Your task to perform on an android device: Do I have any events tomorrow? Image 0: 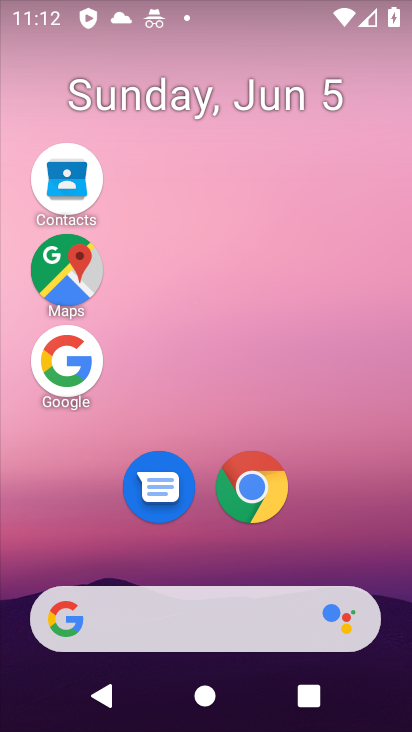
Step 0: drag from (239, 563) to (250, 87)
Your task to perform on an android device: Do I have any events tomorrow? Image 1: 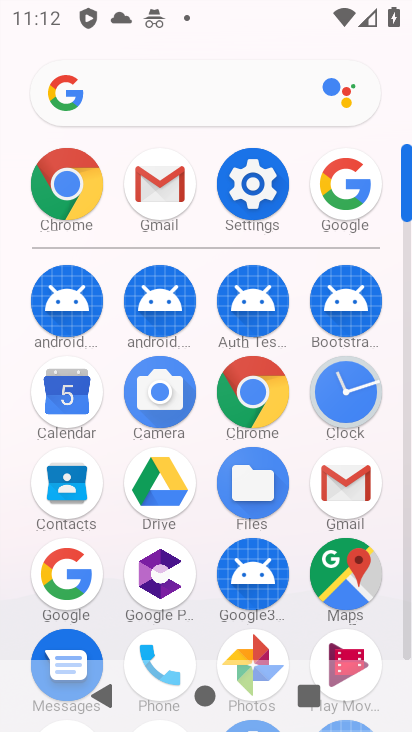
Step 1: drag from (196, 512) to (224, 300)
Your task to perform on an android device: Do I have any events tomorrow? Image 2: 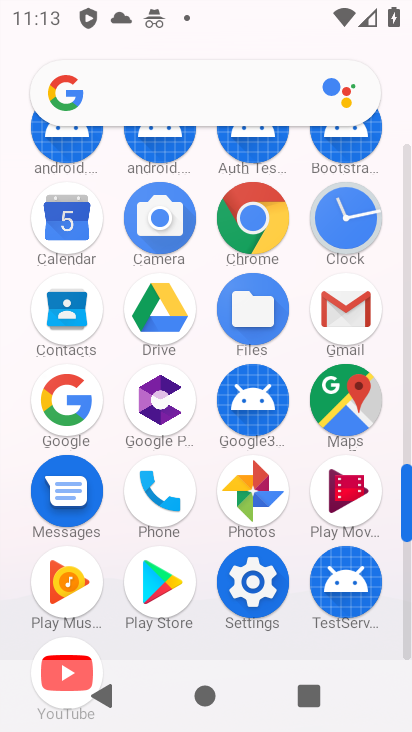
Step 2: click (81, 232)
Your task to perform on an android device: Do I have any events tomorrow? Image 3: 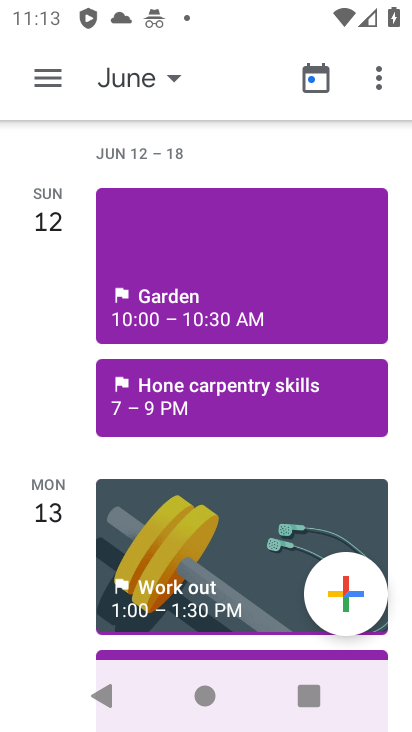
Step 3: click (151, 82)
Your task to perform on an android device: Do I have any events tomorrow? Image 4: 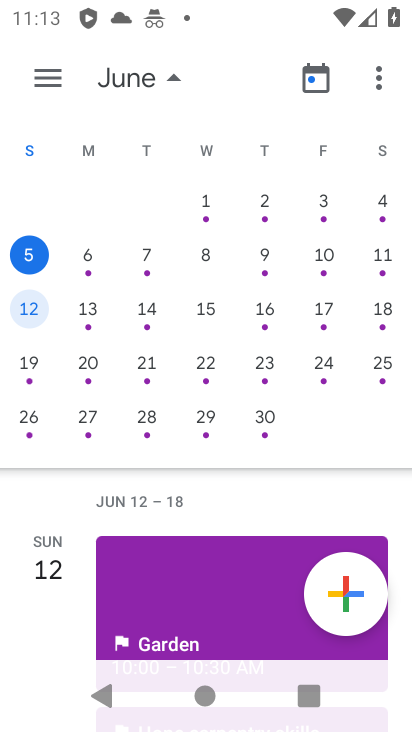
Step 4: click (91, 271)
Your task to perform on an android device: Do I have any events tomorrow? Image 5: 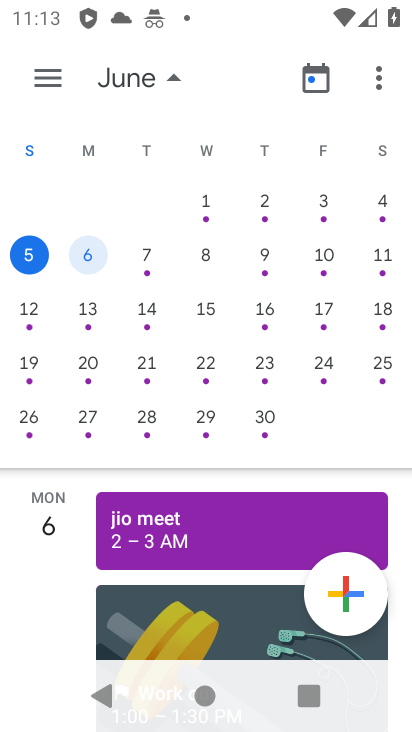
Step 5: task complete